Your task to perform on an android device: open a new tab in the chrome app Image 0: 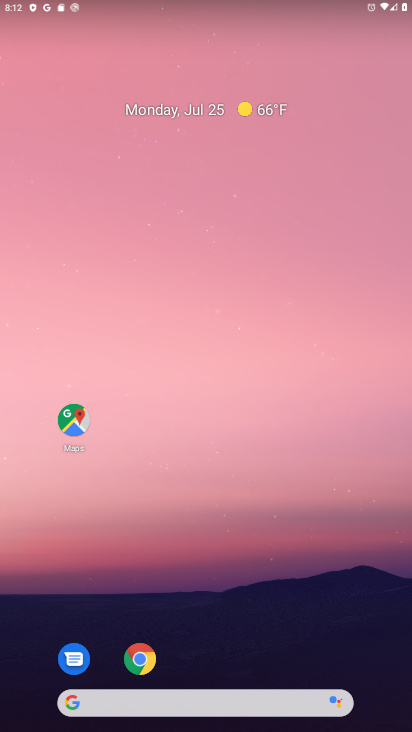
Step 0: click (135, 651)
Your task to perform on an android device: open a new tab in the chrome app Image 1: 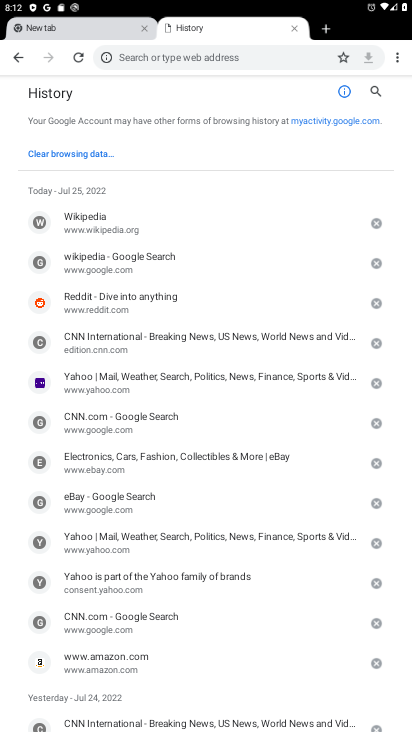
Step 1: click (330, 35)
Your task to perform on an android device: open a new tab in the chrome app Image 2: 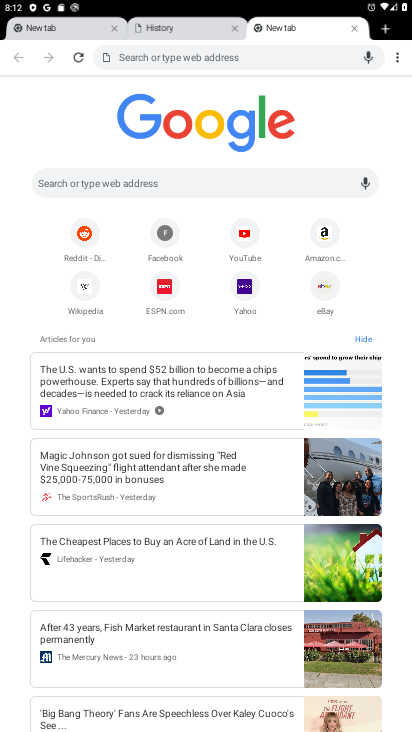
Step 2: task complete